Your task to perform on an android device: open app "AliExpress" (install if not already installed), go to login, and select forgot password Image 0: 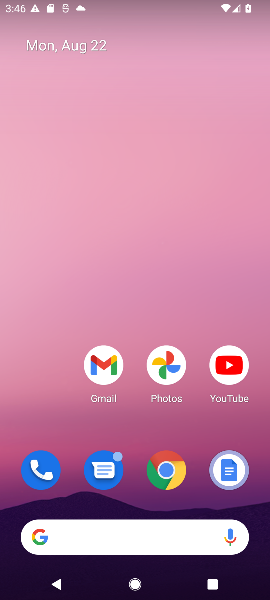
Step 0: drag from (107, 489) to (200, 73)
Your task to perform on an android device: open app "AliExpress" (install if not already installed), go to login, and select forgot password Image 1: 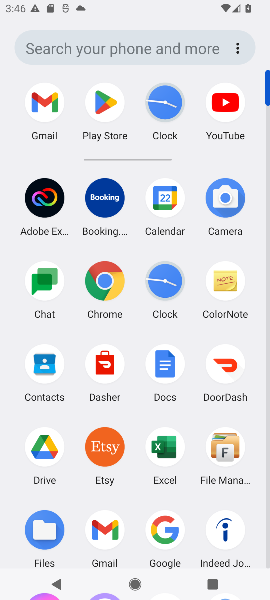
Step 1: click (96, 102)
Your task to perform on an android device: open app "AliExpress" (install if not already installed), go to login, and select forgot password Image 2: 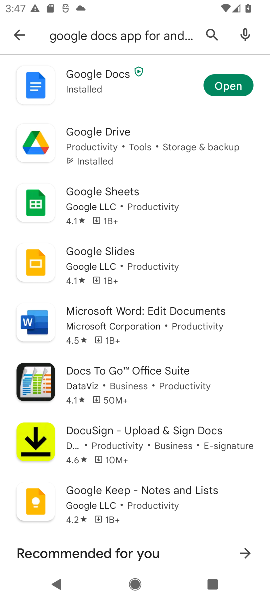
Step 2: click (19, 30)
Your task to perform on an android device: open app "AliExpress" (install if not already installed), go to login, and select forgot password Image 3: 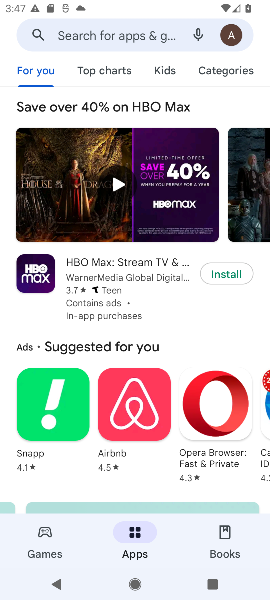
Step 3: click (107, 33)
Your task to perform on an android device: open app "AliExpress" (install if not already installed), go to login, and select forgot password Image 4: 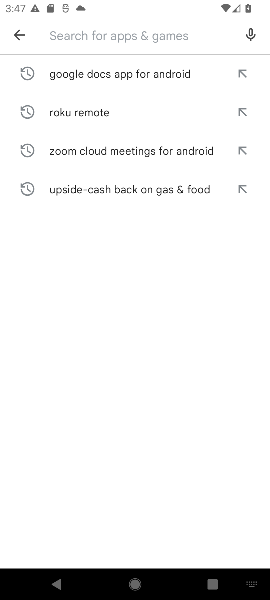
Step 4: type "AliExpress "
Your task to perform on an android device: open app "AliExpress" (install if not already installed), go to login, and select forgot password Image 5: 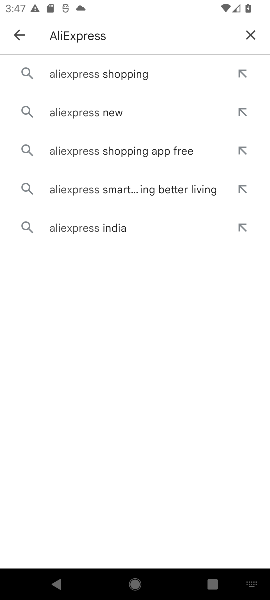
Step 5: click (88, 77)
Your task to perform on an android device: open app "AliExpress" (install if not already installed), go to login, and select forgot password Image 6: 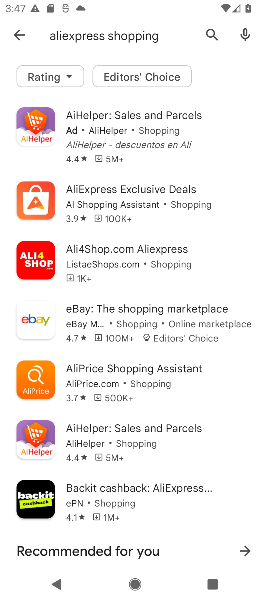
Step 6: click (105, 200)
Your task to perform on an android device: open app "AliExpress" (install if not already installed), go to login, and select forgot password Image 7: 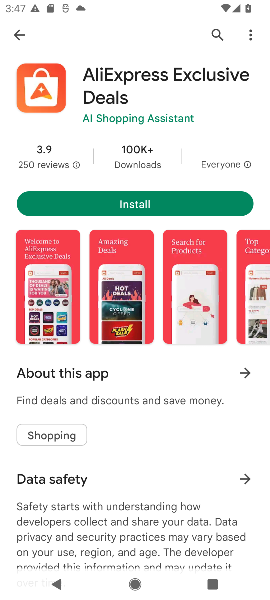
Step 7: click (123, 198)
Your task to perform on an android device: open app "AliExpress" (install if not already installed), go to login, and select forgot password Image 8: 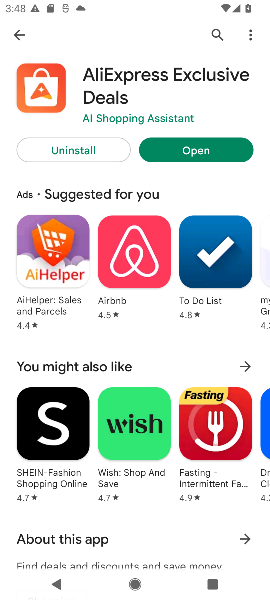
Step 8: click (203, 146)
Your task to perform on an android device: open app "AliExpress" (install if not already installed), go to login, and select forgot password Image 9: 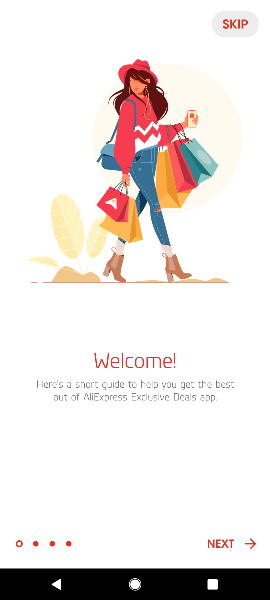
Step 9: task complete